Your task to perform on an android device: Open the calendar and show me this week's events Image 0: 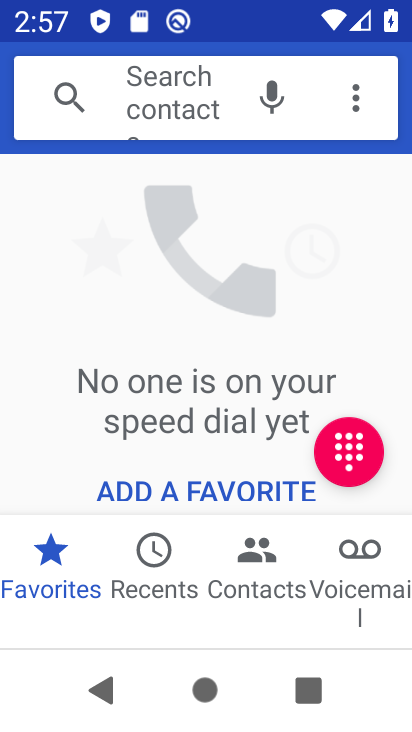
Step 0: press home button
Your task to perform on an android device: Open the calendar and show me this week's events Image 1: 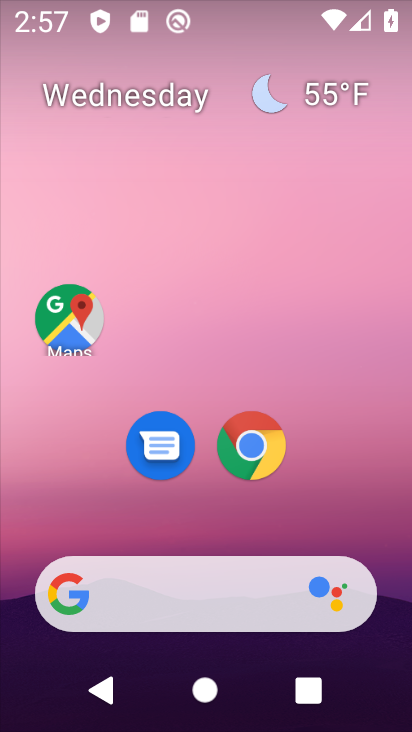
Step 1: drag from (315, 500) to (340, 247)
Your task to perform on an android device: Open the calendar and show me this week's events Image 2: 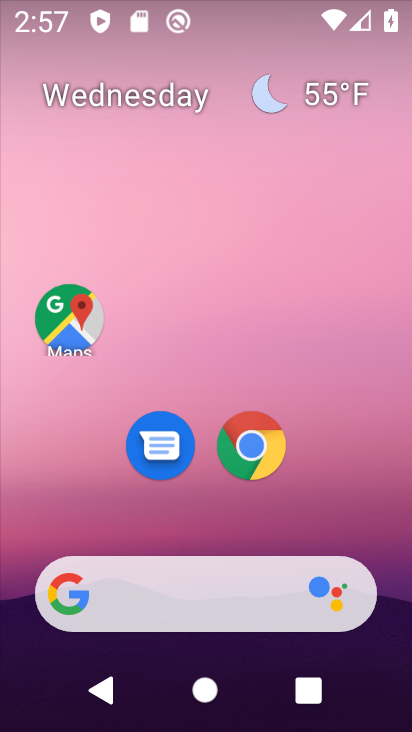
Step 2: click (340, 247)
Your task to perform on an android device: Open the calendar and show me this week's events Image 3: 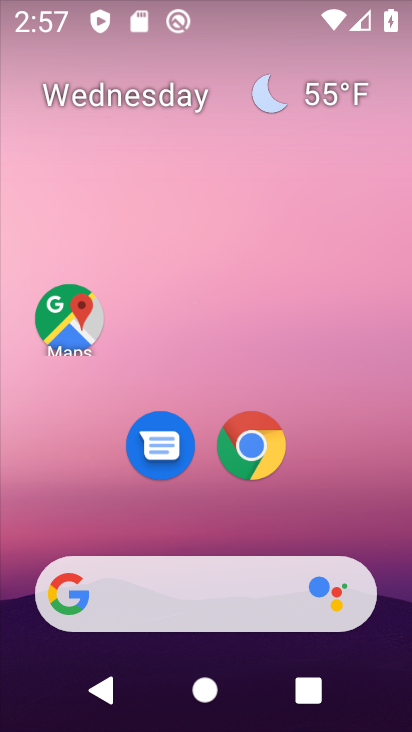
Step 3: drag from (376, 635) to (314, 84)
Your task to perform on an android device: Open the calendar and show me this week's events Image 4: 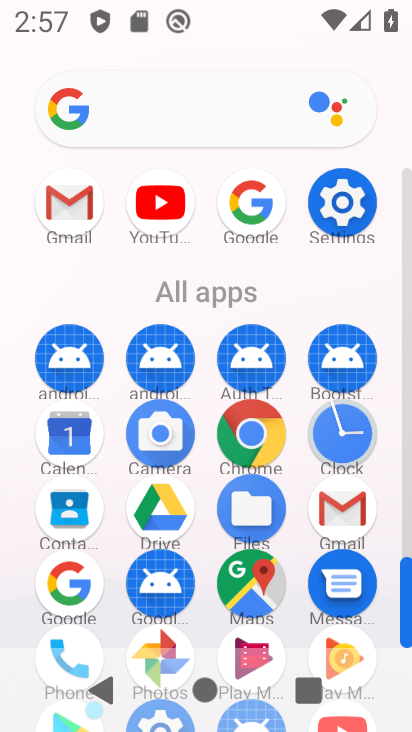
Step 4: click (84, 430)
Your task to perform on an android device: Open the calendar and show me this week's events Image 5: 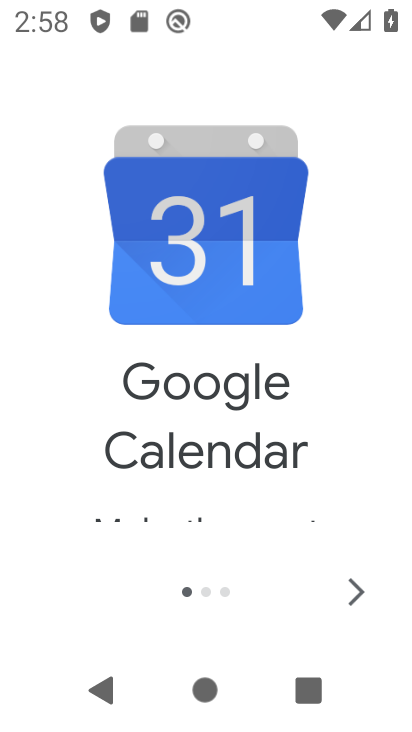
Step 5: click (356, 576)
Your task to perform on an android device: Open the calendar and show me this week's events Image 6: 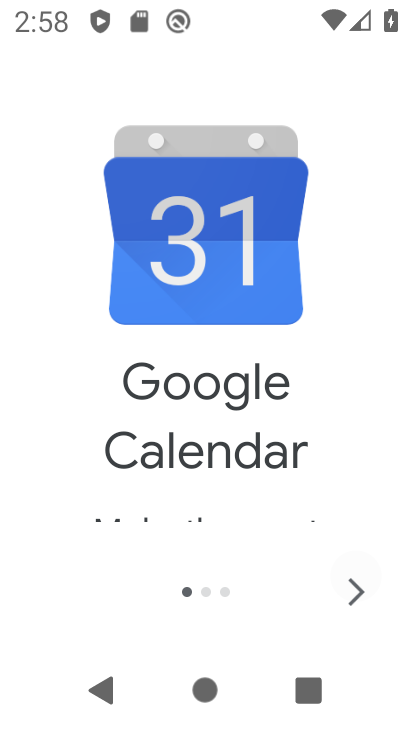
Step 6: click (356, 576)
Your task to perform on an android device: Open the calendar and show me this week's events Image 7: 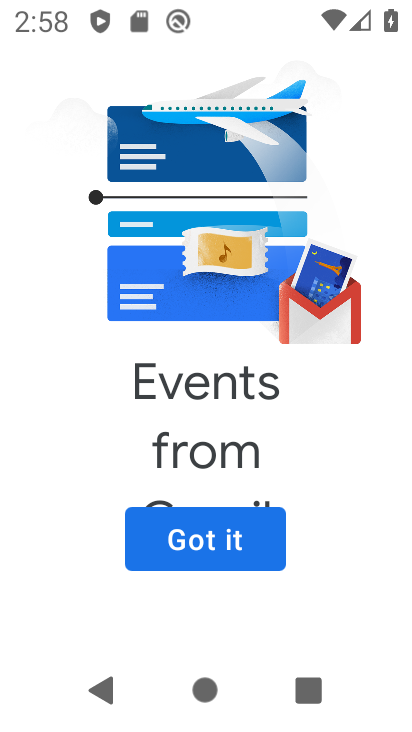
Step 7: click (356, 576)
Your task to perform on an android device: Open the calendar and show me this week's events Image 8: 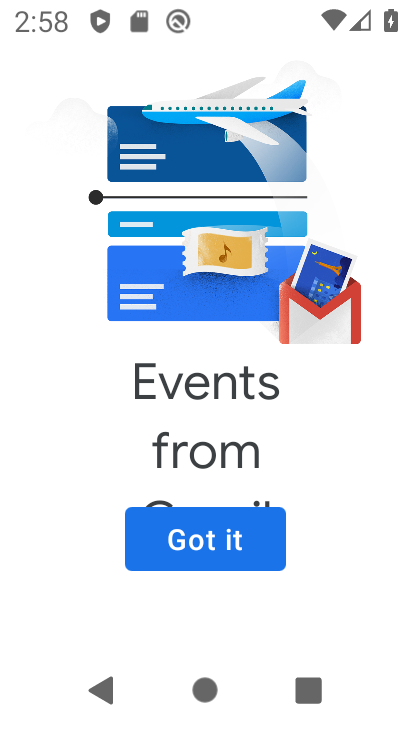
Step 8: click (173, 536)
Your task to perform on an android device: Open the calendar and show me this week's events Image 9: 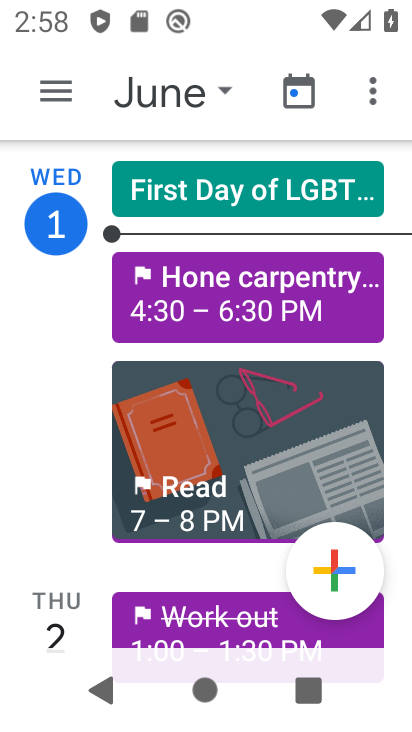
Step 9: click (51, 100)
Your task to perform on an android device: Open the calendar and show me this week's events Image 10: 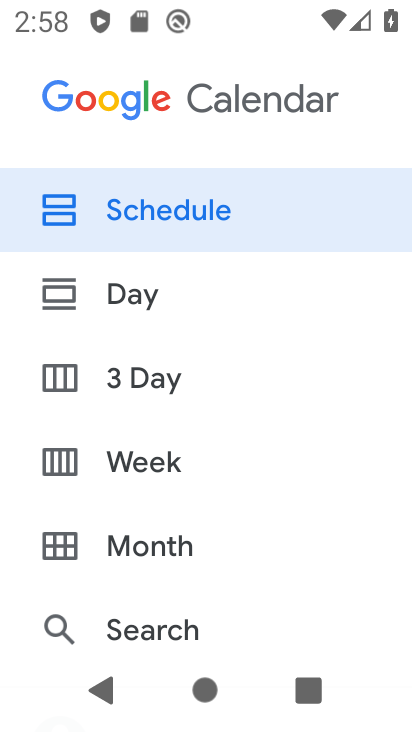
Step 10: click (114, 444)
Your task to perform on an android device: Open the calendar and show me this week's events Image 11: 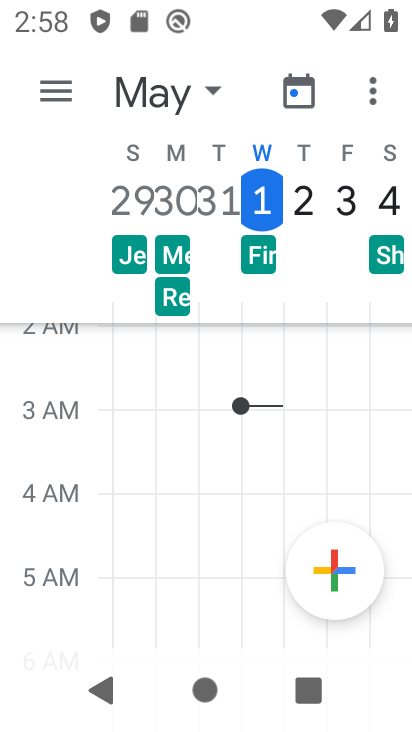
Step 11: task complete